Your task to perform on an android device: toggle pop-ups in chrome Image 0: 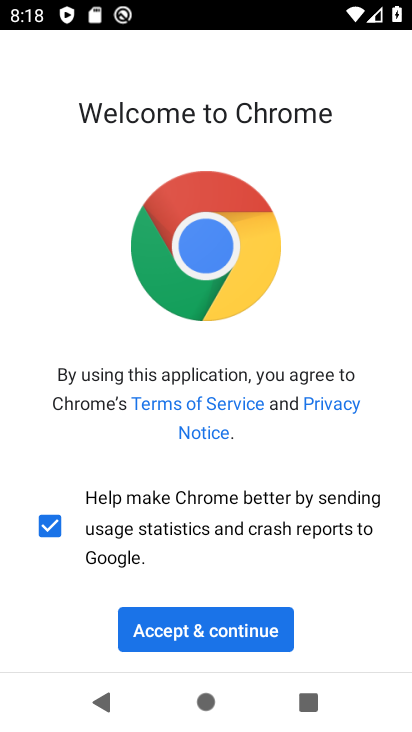
Step 0: click (243, 623)
Your task to perform on an android device: toggle pop-ups in chrome Image 1: 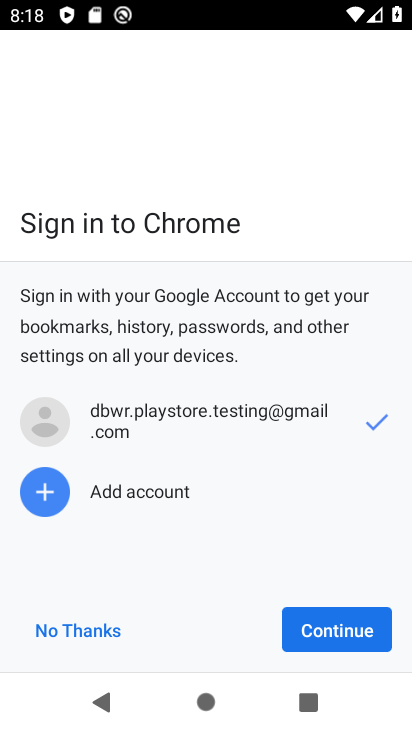
Step 1: click (92, 631)
Your task to perform on an android device: toggle pop-ups in chrome Image 2: 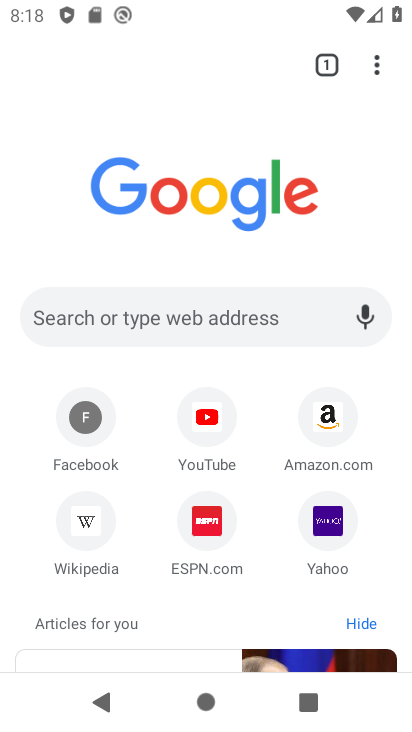
Step 2: click (375, 64)
Your task to perform on an android device: toggle pop-ups in chrome Image 3: 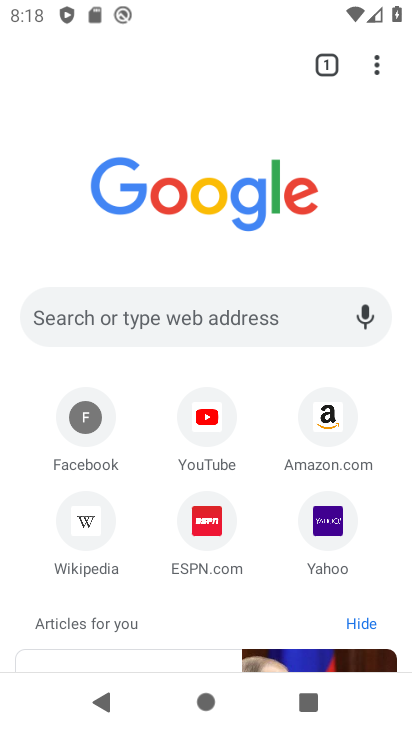
Step 3: click (378, 58)
Your task to perform on an android device: toggle pop-ups in chrome Image 4: 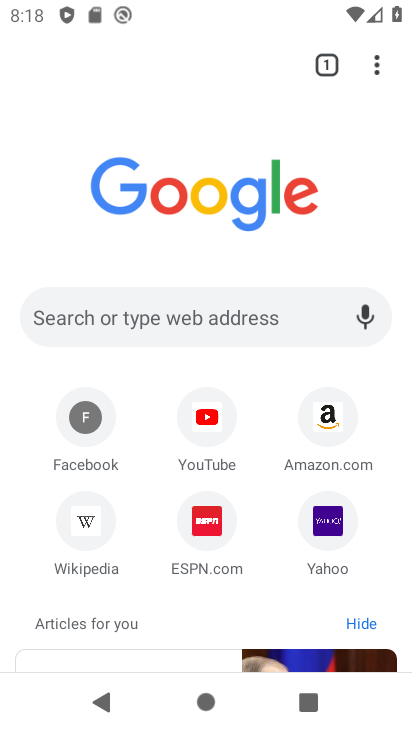
Step 4: drag from (374, 59) to (157, 552)
Your task to perform on an android device: toggle pop-ups in chrome Image 5: 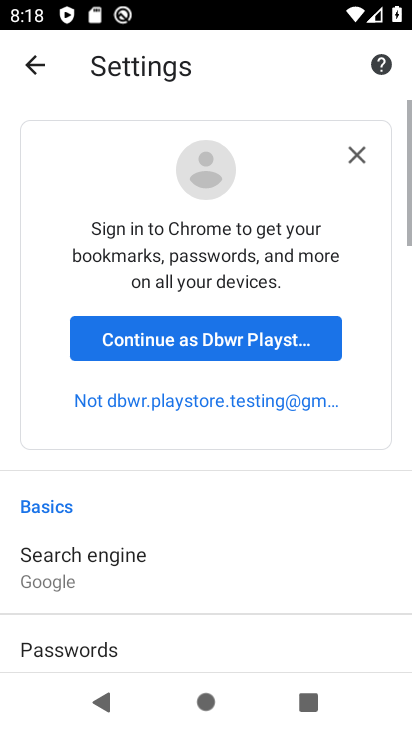
Step 5: drag from (216, 582) to (256, 50)
Your task to perform on an android device: toggle pop-ups in chrome Image 6: 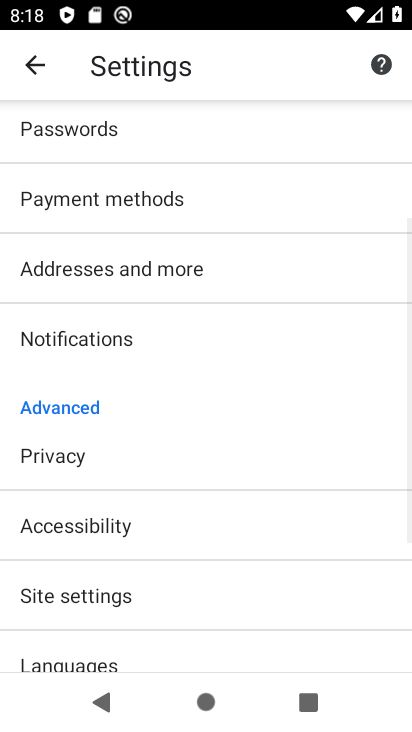
Step 6: drag from (180, 545) to (224, 289)
Your task to perform on an android device: toggle pop-ups in chrome Image 7: 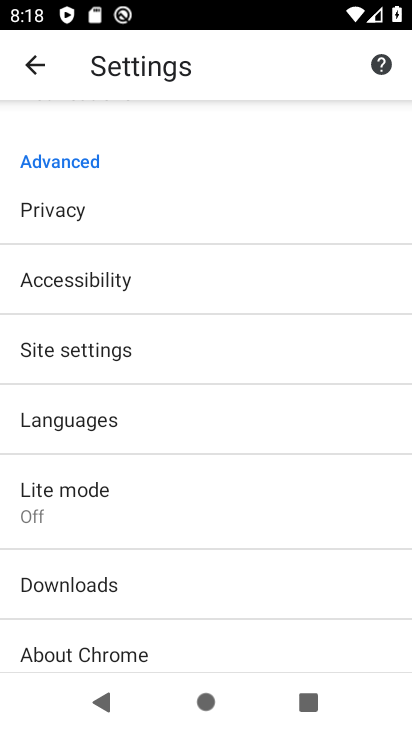
Step 7: click (140, 332)
Your task to perform on an android device: toggle pop-ups in chrome Image 8: 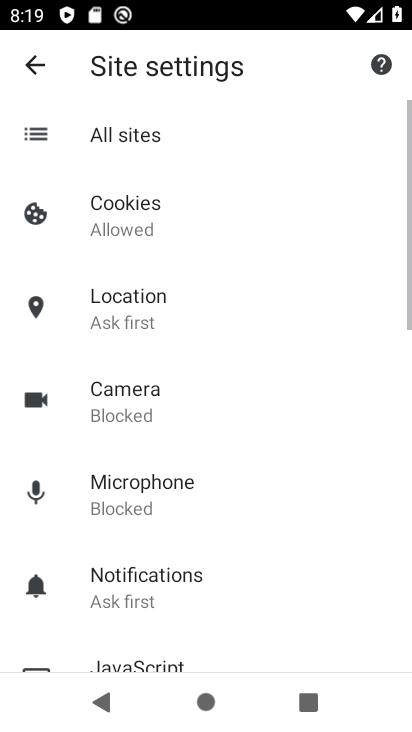
Step 8: drag from (168, 533) to (222, 233)
Your task to perform on an android device: toggle pop-ups in chrome Image 9: 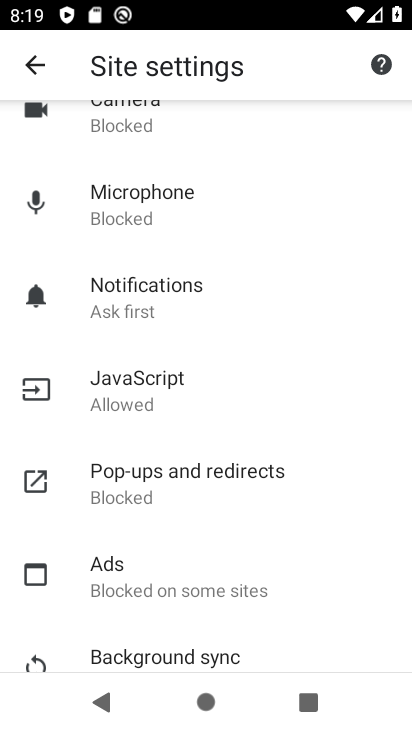
Step 9: click (184, 469)
Your task to perform on an android device: toggle pop-ups in chrome Image 10: 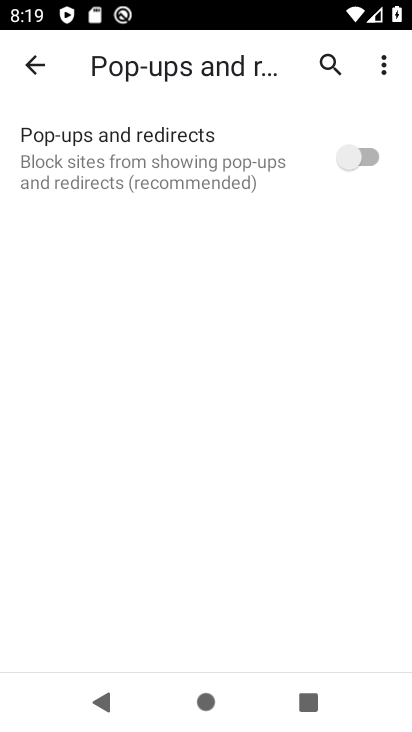
Step 10: click (361, 152)
Your task to perform on an android device: toggle pop-ups in chrome Image 11: 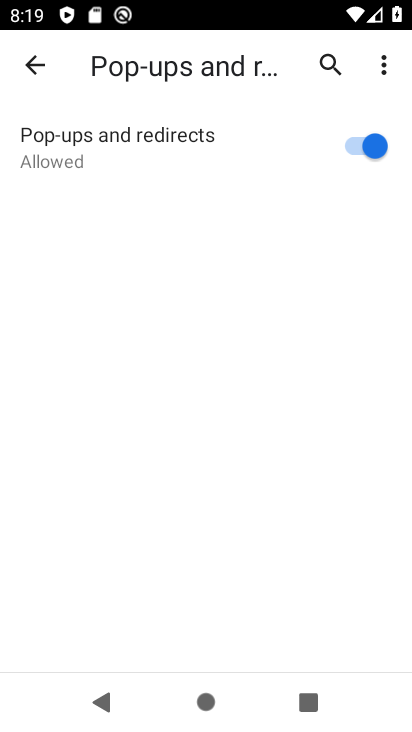
Step 11: task complete